Your task to perform on an android device: uninstall "LinkedIn" Image 0: 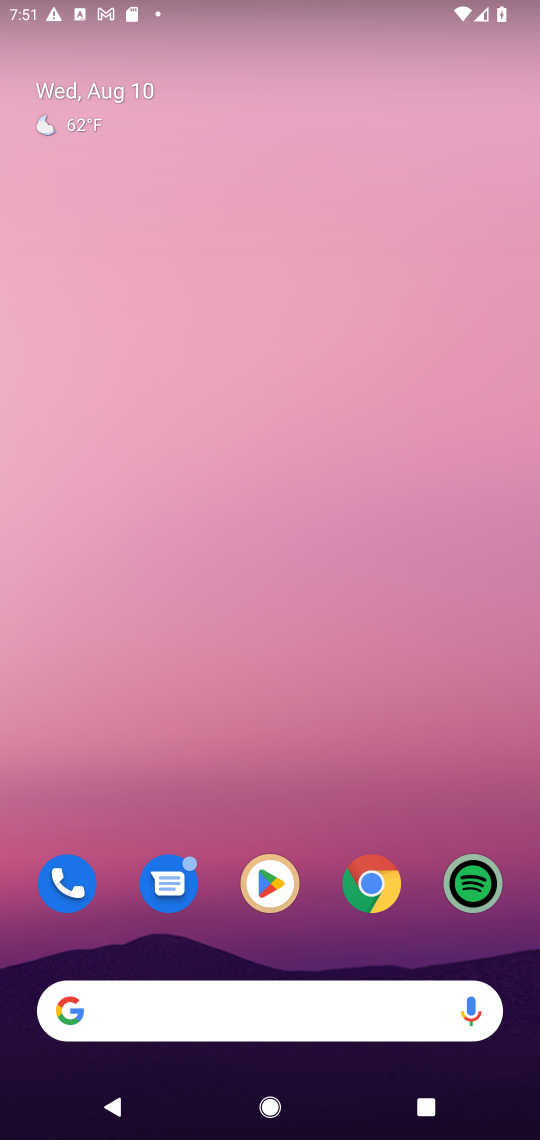
Step 0: click (265, 900)
Your task to perform on an android device: uninstall "LinkedIn" Image 1: 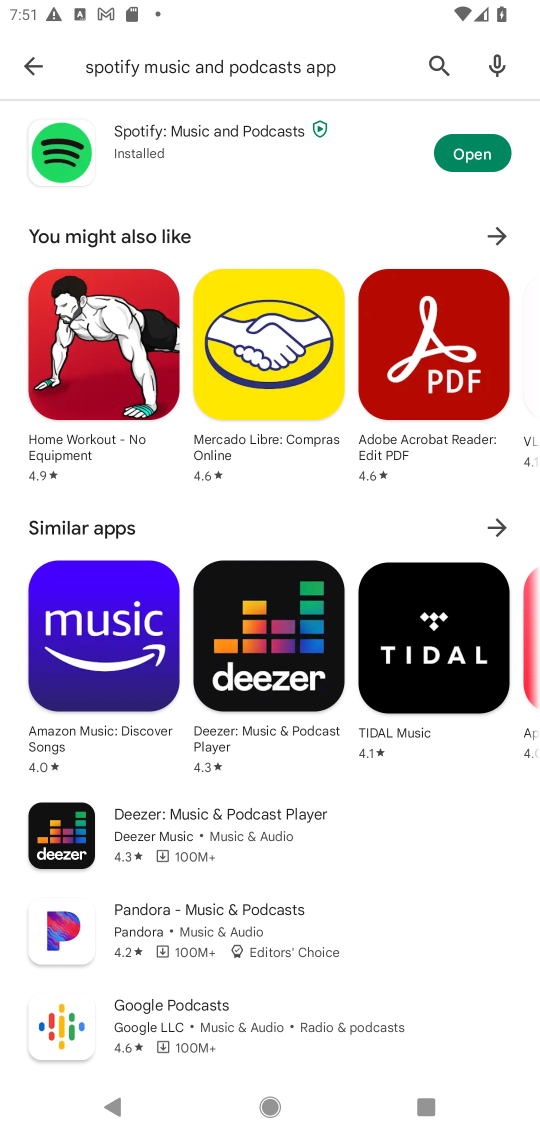
Step 1: click (461, 61)
Your task to perform on an android device: uninstall "LinkedIn" Image 2: 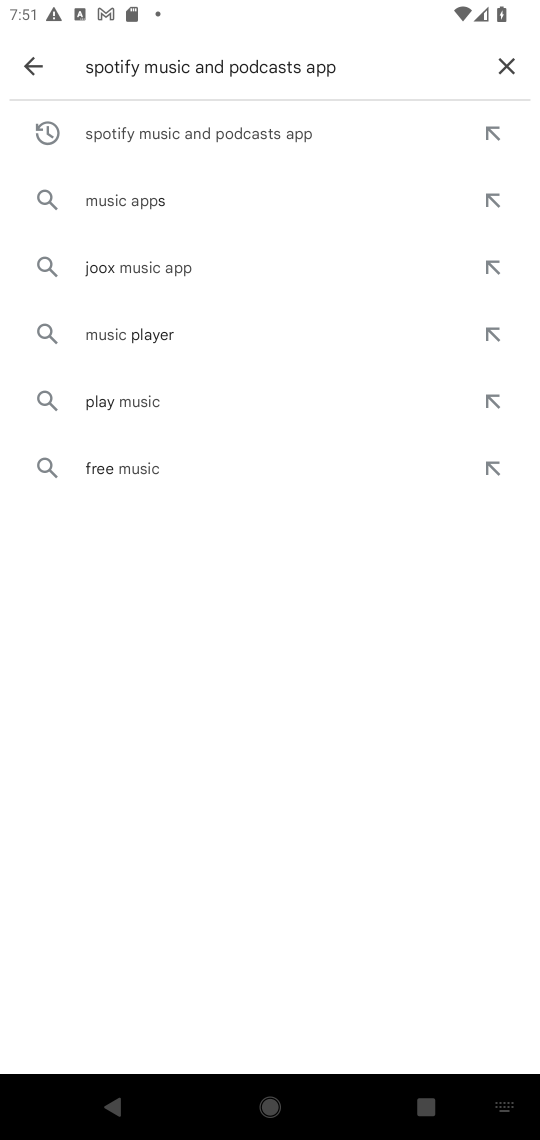
Step 2: click (509, 54)
Your task to perform on an android device: uninstall "LinkedIn" Image 3: 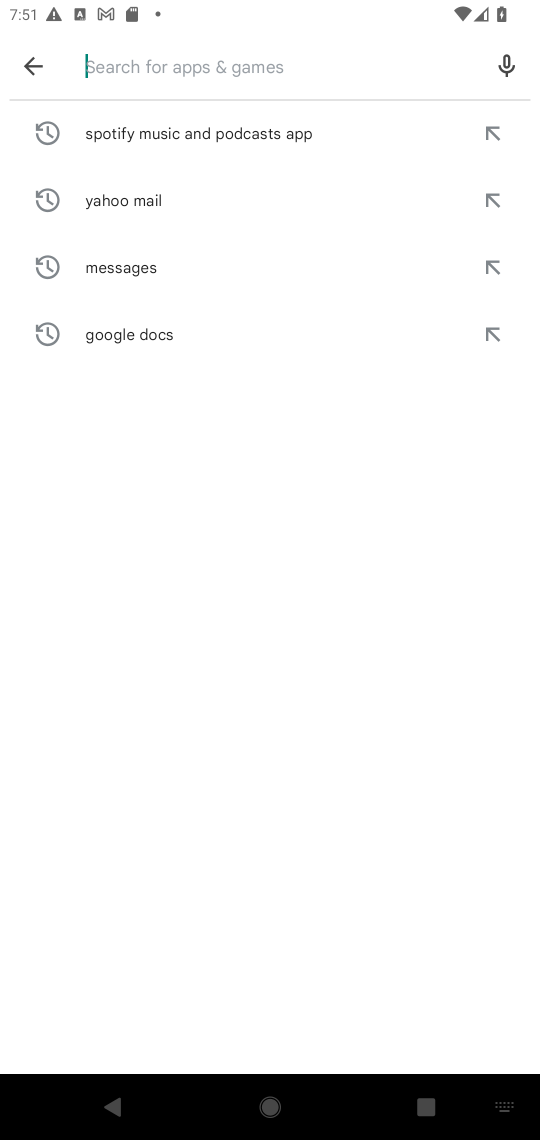
Step 3: click (162, 59)
Your task to perform on an android device: uninstall "LinkedIn" Image 4: 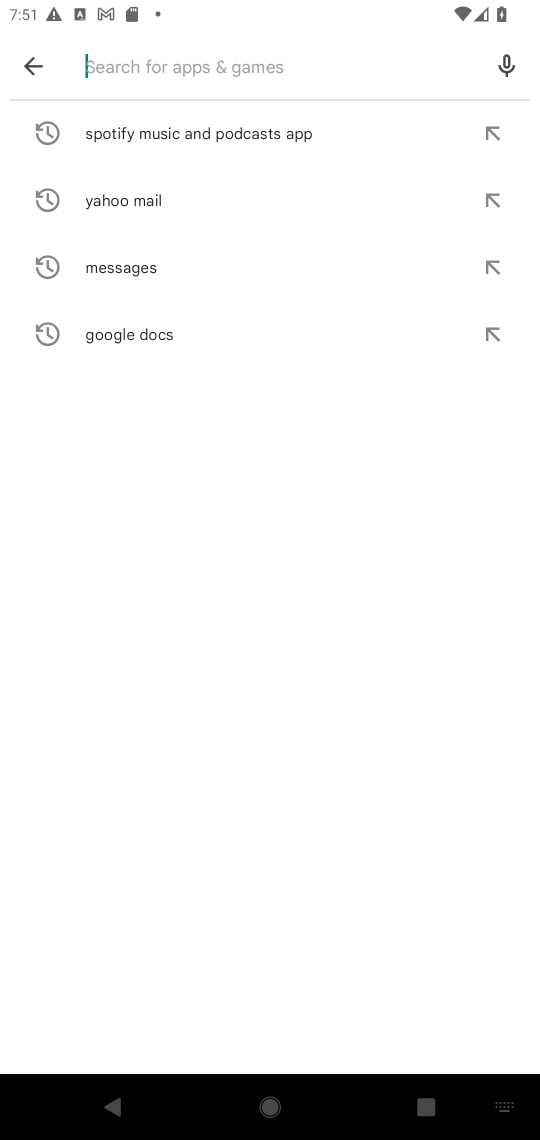
Step 4: type "LinkedIn"
Your task to perform on an android device: uninstall "LinkedIn" Image 5: 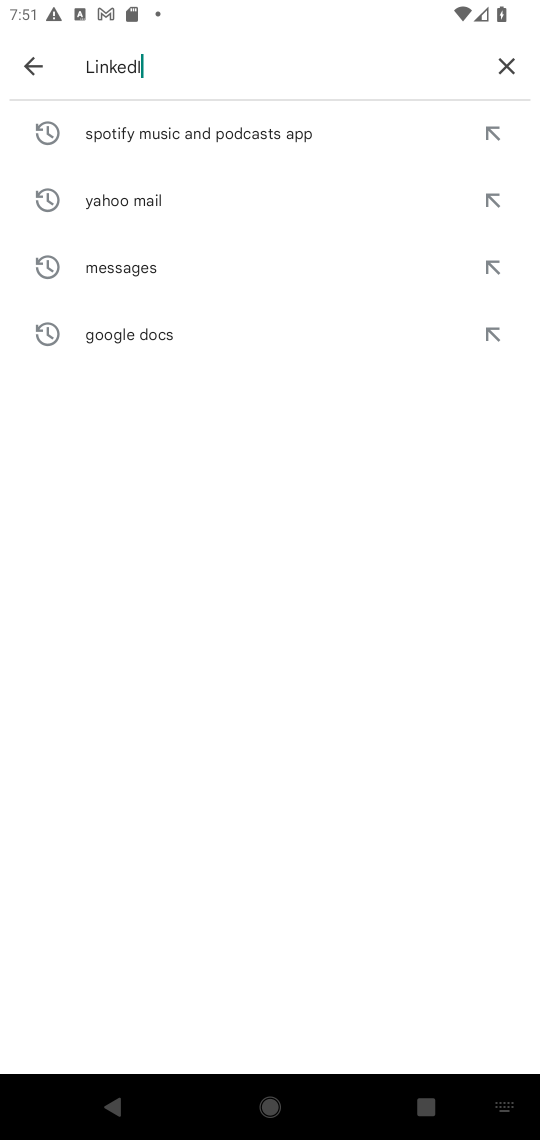
Step 5: type ""
Your task to perform on an android device: uninstall "LinkedIn" Image 6: 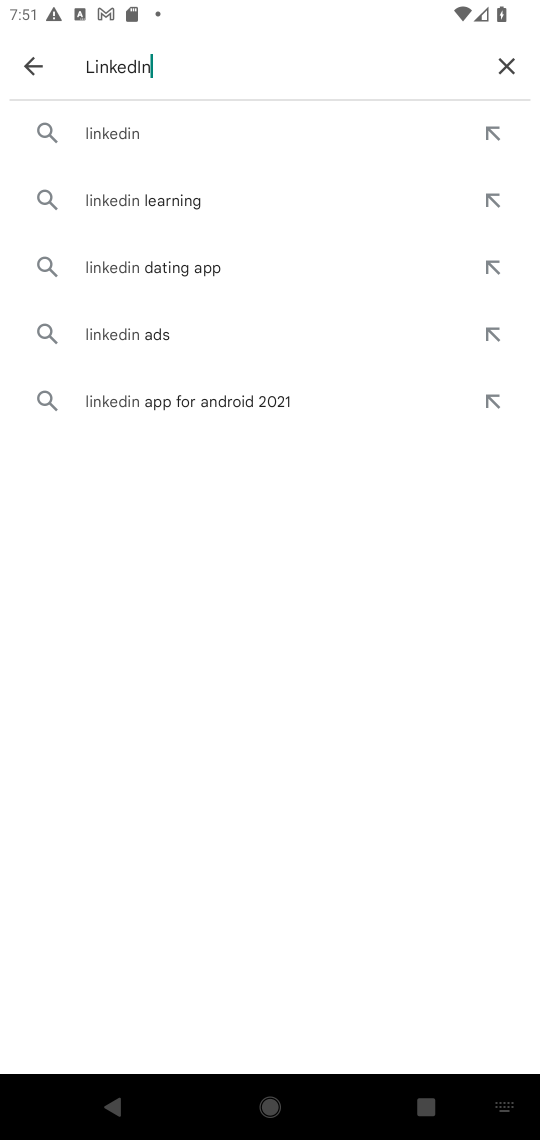
Step 6: click (176, 135)
Your task to perform on an android device: uninstall "LinkedIn" Image 7: 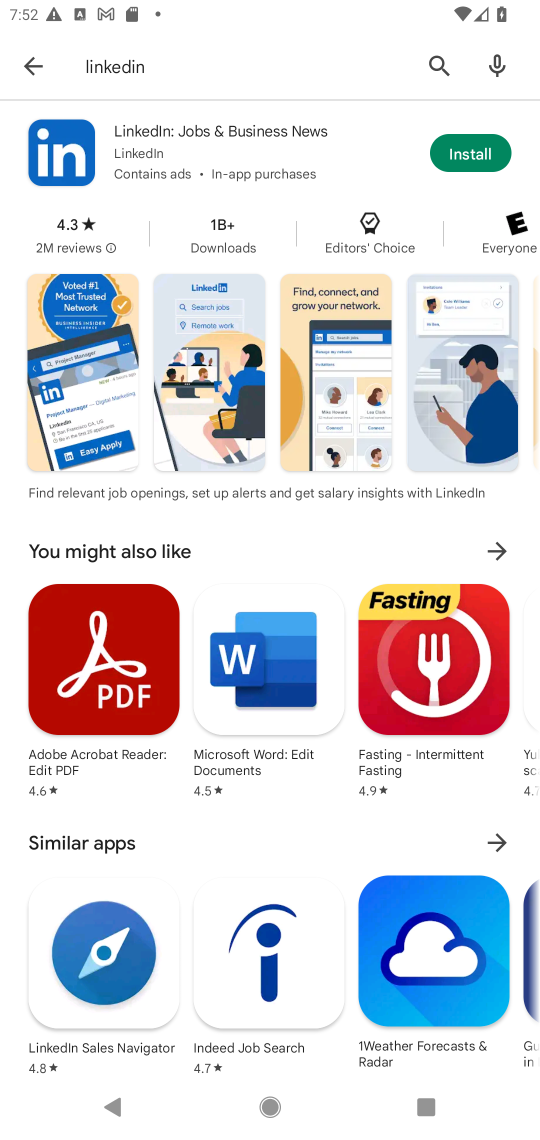
Step 7: click (303, 117)
Your task to perform on an android device: uninstall "LinkedIn" Image 8: 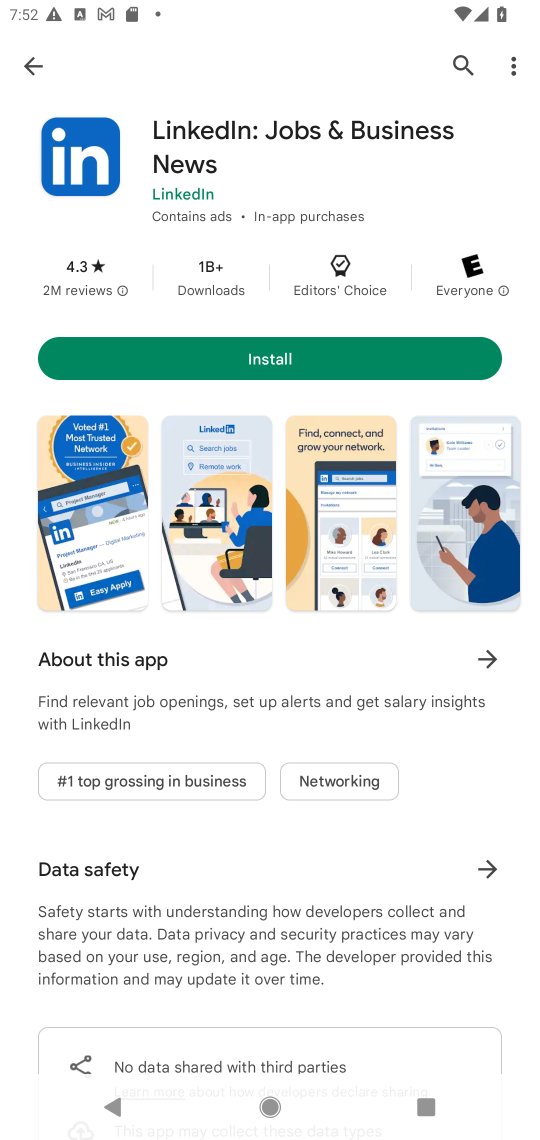
Step 8: task complete